Your task to perform on an android device: turn off javascript in the chrome app Image 0: 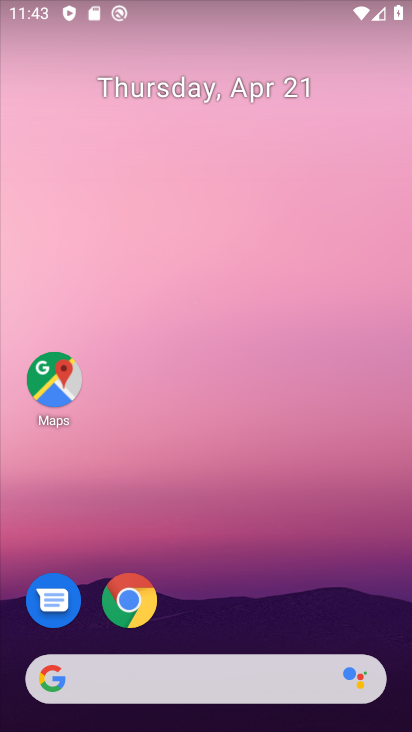
Step 0: click (133, 611)
Your task to perform on an android device: turn off javascript in the chrome app Image 1: 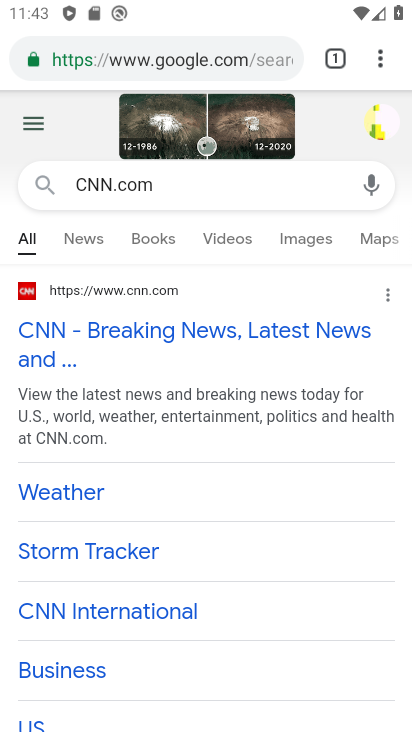
Step 1: click (386, 67)
Your task to perform on an android device: turn off javascript in the chrome app Image 2: 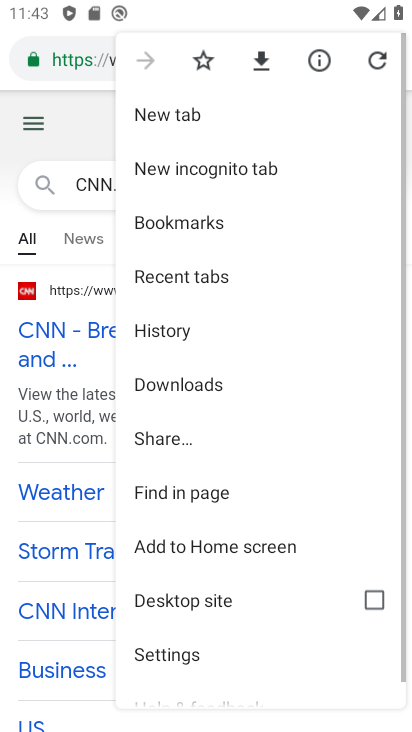
Step 2: drag from (204, 612) to (234, 425)
Your task to perform on an android device: turn off javascript in the chrome app Image 3: 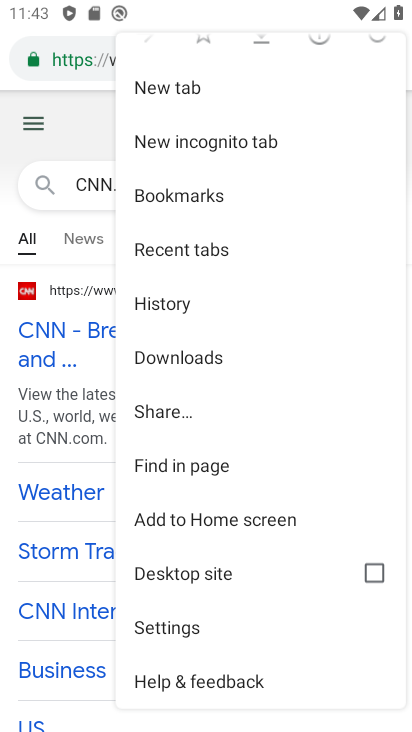
Step 3: click (199, 623)
Your task to perform on an android device: turn off javascript in the chrome app Image 4: 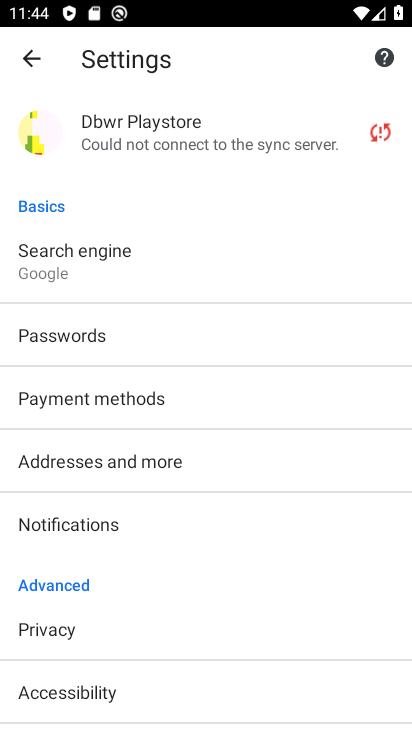
Step 4: drag from (88, 600) to (189, 302)
Your task to perform on an android device: turn off javascript in the chrome app Image 5: 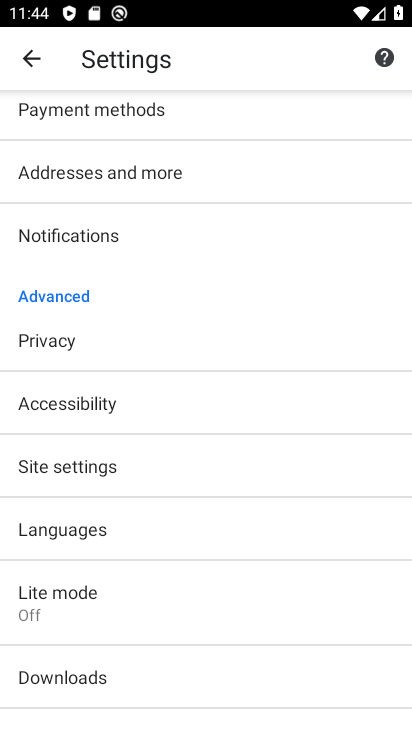
Step 5: click (81, 473)
Your task to perform on an android device: turn off javascript in the chrome app Image 6: 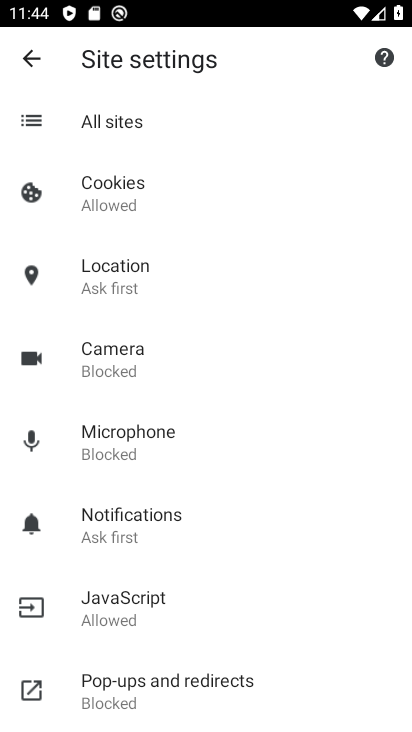
Step 6: click (128, 611)
Your task to perform on an android device: turn off javascript in the chrome app Image 7: 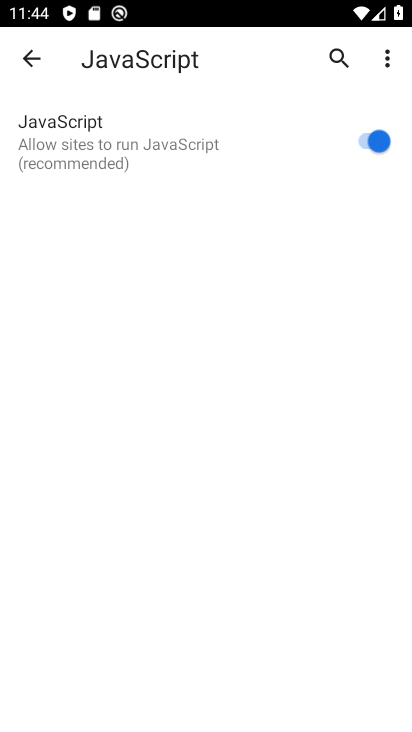
Step 7: click (359, 141)
Your task to perform on an android device: turn off javascript in the chrome app Image 8: 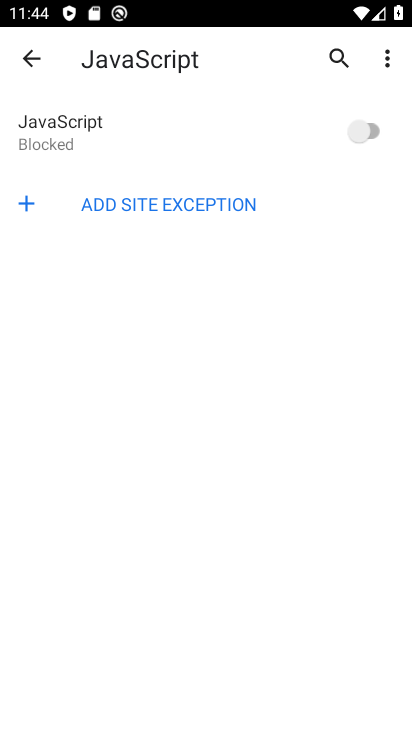
Step 8: task complete